Your task to perform on an android device: What's the latest news in space technology? Image 0: 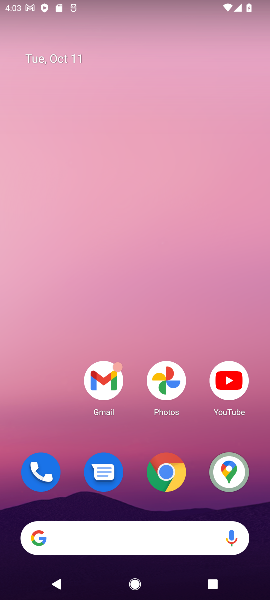
Step 0: click (140, 533)
Your task to perform on an android device: What's the latest news in space technology? Image 1: 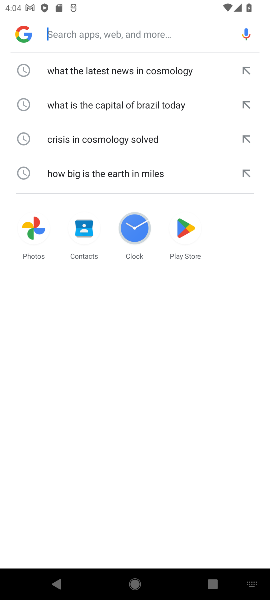
Step 1: type "What's the latest news in space technology?"
Your task to perform on an android device: What's the latest news in space technology? Image 2: 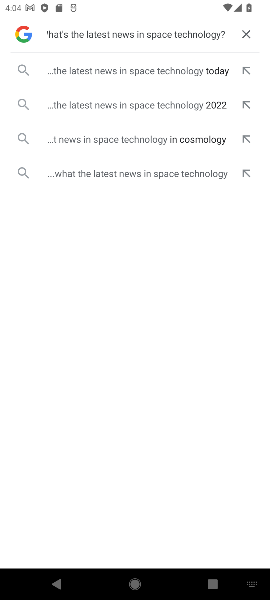
Step 2: click (195, 177)
Your task to perform on an android device: What's the latest news in space technology? Image 3: 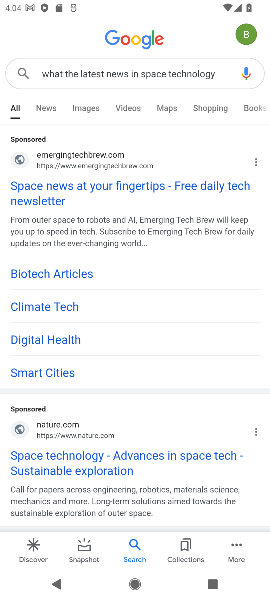
Step 3: task complete